Your task to perform on an android device: see sites visited before in the chrome app Image 0: 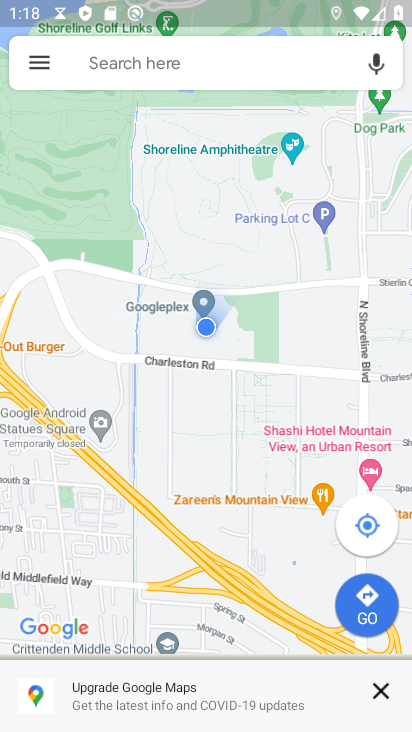
Step 0: press home button
Your task to perform on an android device: see sites visited before in the chrome app Image 1: 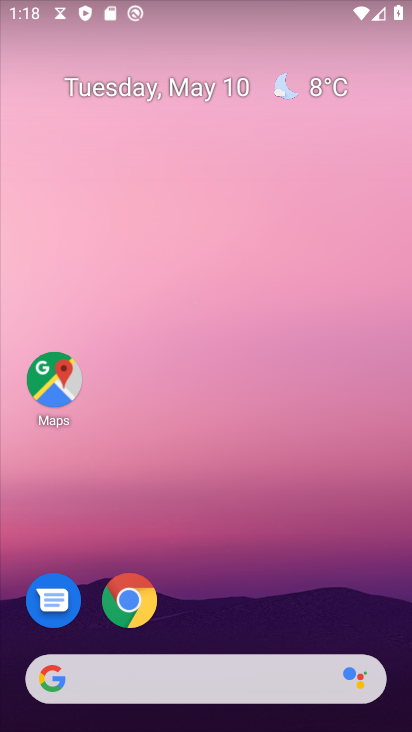
Step 1: click (126, 593)
Your task to perform on an android device: see sites visited before in the chrome app Image 2: 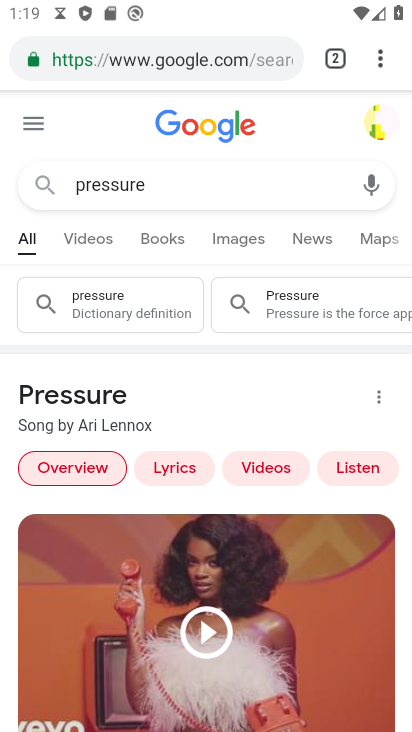
Step 2: click (378, 55)
Your task to perform on an android device: see sites visited before in the chrome app Image 3: 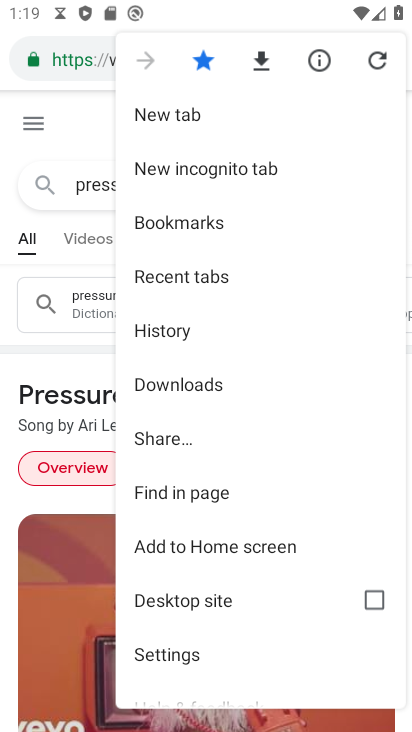
Step 3: click (201, 329)
Your task to perform on an android device: see sites visited before in the chrome app Image 4: 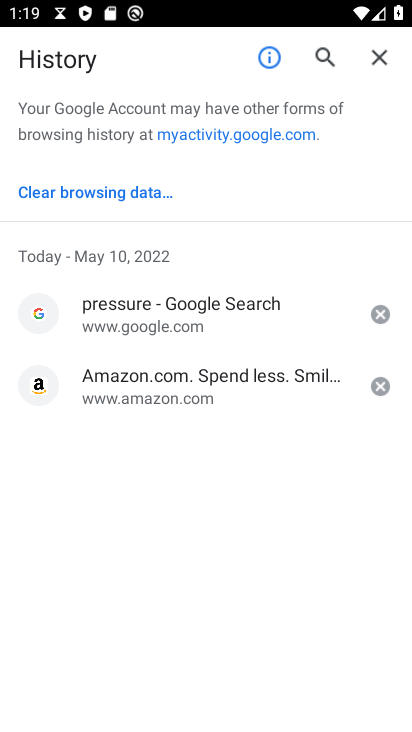
Step 4: task complete